Your task to perform on an android device: open chrome and create a bookmark for the current page Image 0: 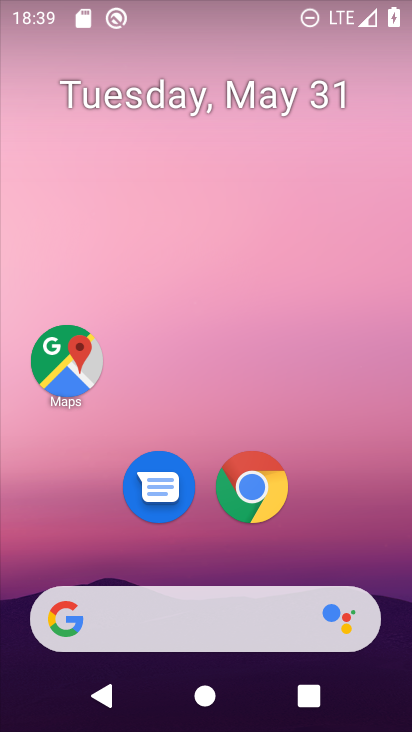
Step 0: click (252, 487)
Your task to perform on an android device: open chrome and create a bookmark for the current page Image 1: 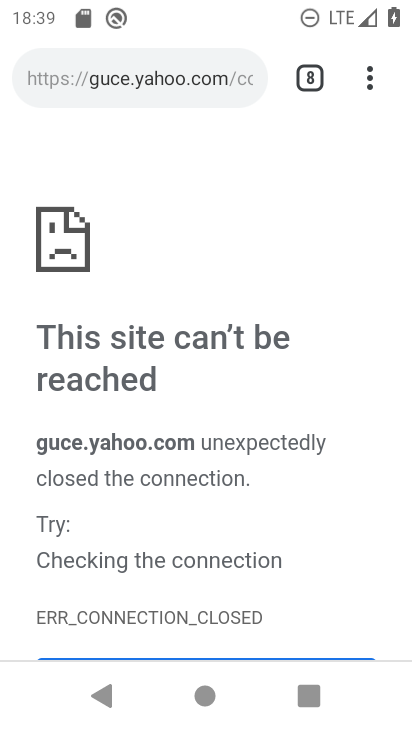
Step 1: click (368, 78)
Your task to perform on an android device: open chrome and create a bookmark for the current page Image 2: 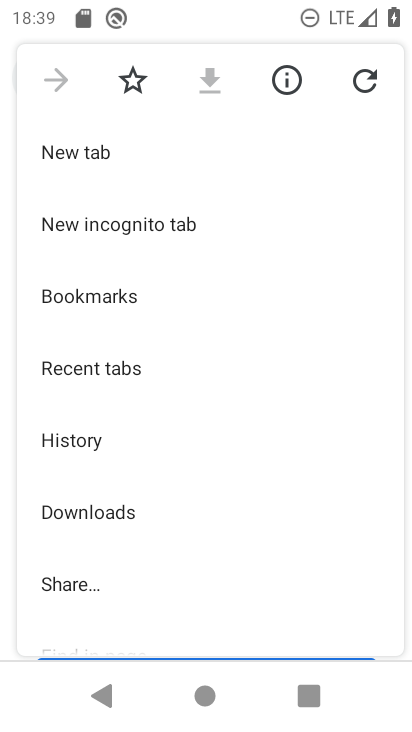
Step 2: click (131, 82)
Your task to perform on an android device: open chrome and create a bookmark for the current page Image 3: 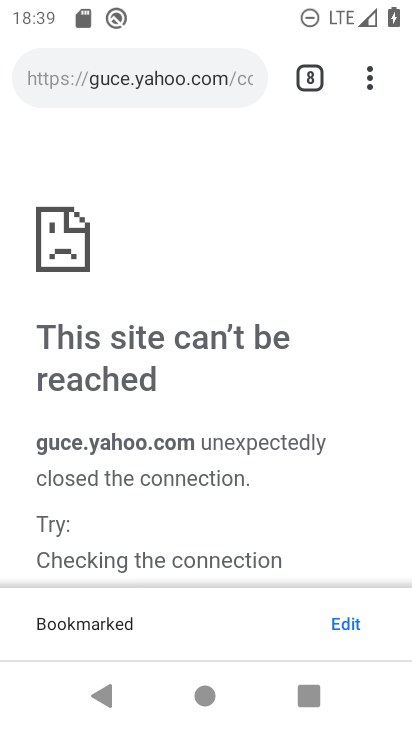
Step 3: task complete